Your task to perform on an android device: Open Youtube and go to "Your channel" Image 0: 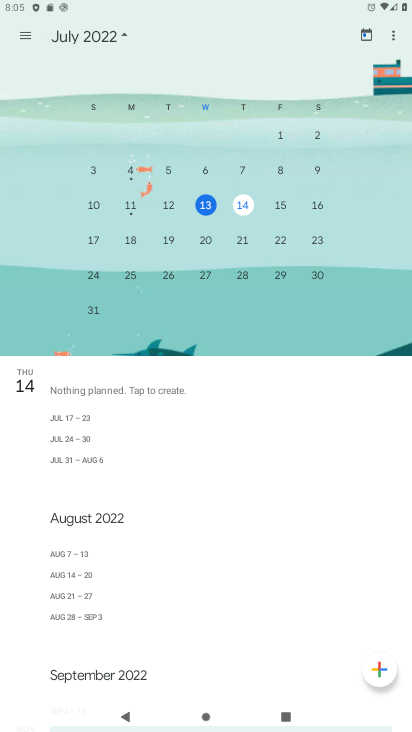
Step 0: press home button
Your task to perform on an android device: Open Youtube and go to "Your channel" Image 1: 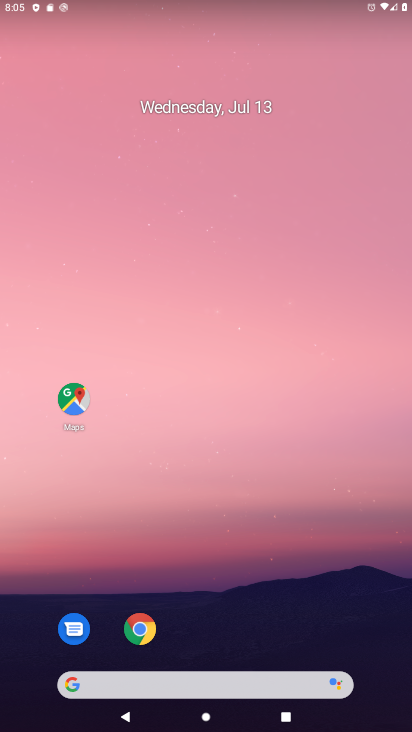
Step 1: drag from (285, 594) to (329, 4)
Your task to perform on an android device: Open Youtube and go to "Your channel" Image 2: 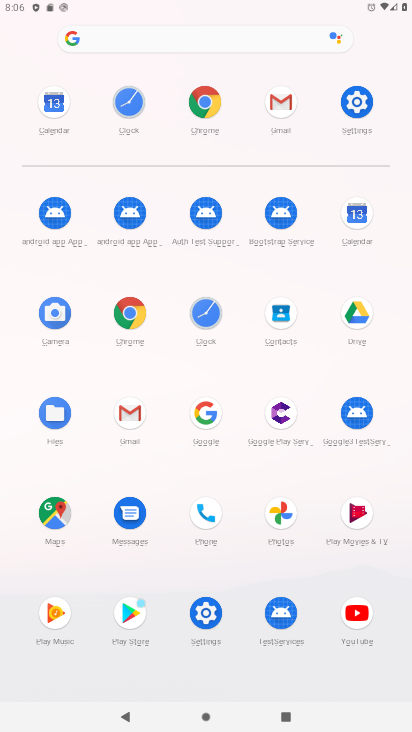
Step 2: click (358, 613)
Your task to perform on an android device: Open Youtube and go to "Your channel" Image 3: 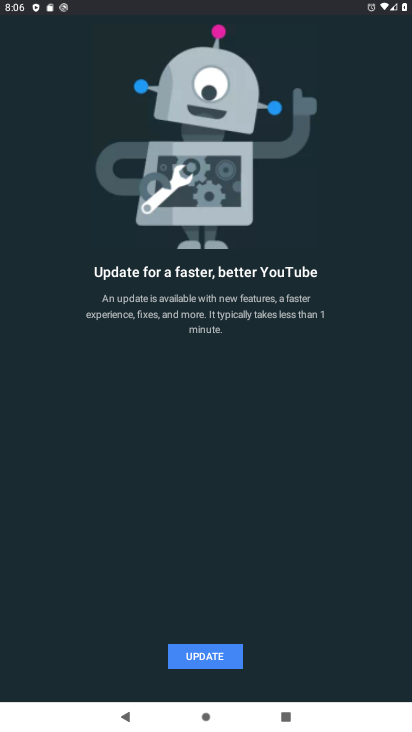
Step 3: click (227, 656)
Your task to perform on an android device: Open Youtube and go to "Your channel" Image 4: 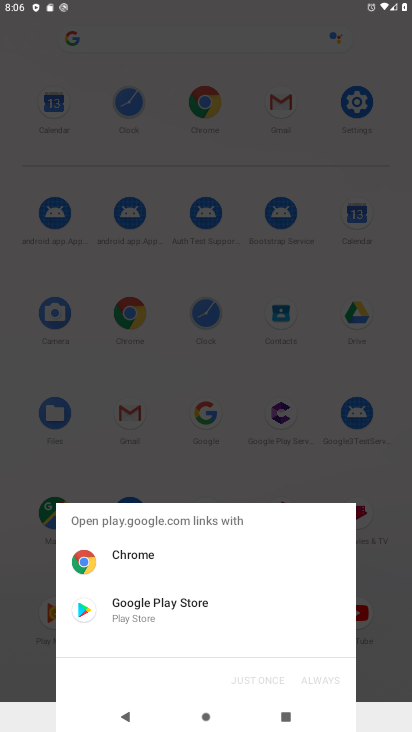
Step 4: click (119, 618)
Your task to perform on an android device: Open Youtube and go to "Your channel" Image 5: 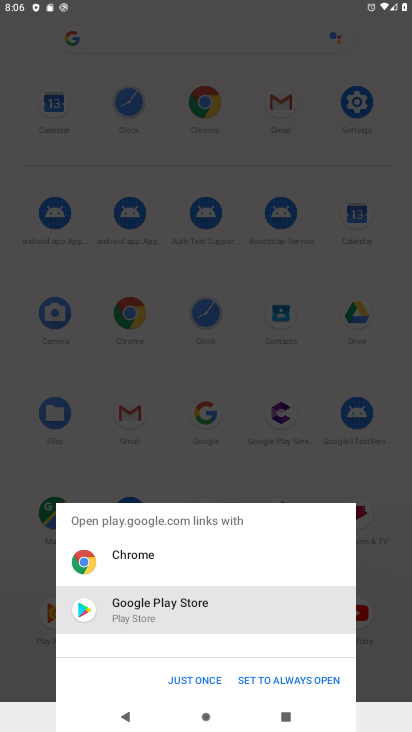
Step 5: click (184, 681)
Your task to perform on an android device: Open Youtube and go to "Your channel" Image 6: 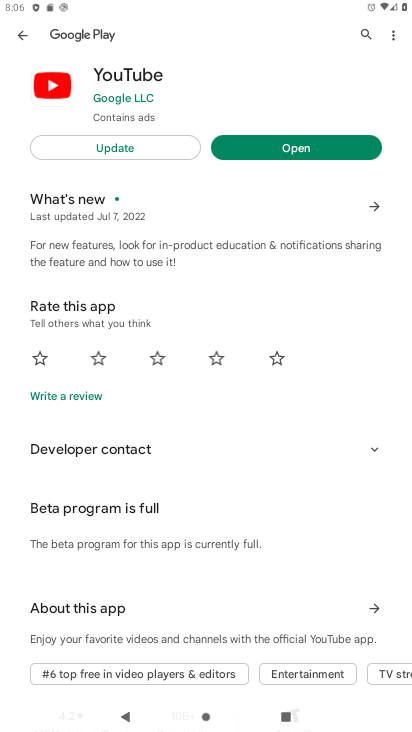
Step 6: click (103, 149)
Your task to perform on an android device: Open Youtube and go to "Your channel" Image 7: 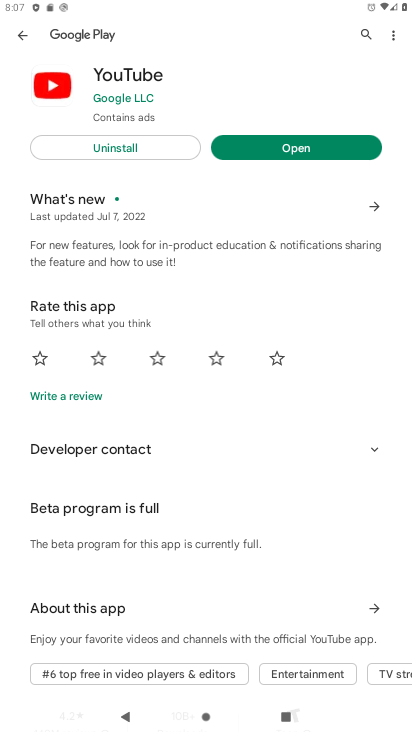
Step 7: click (283, 170)
Your task to perform on an android device: Open Youtube and go to "Your channel" Image 8: 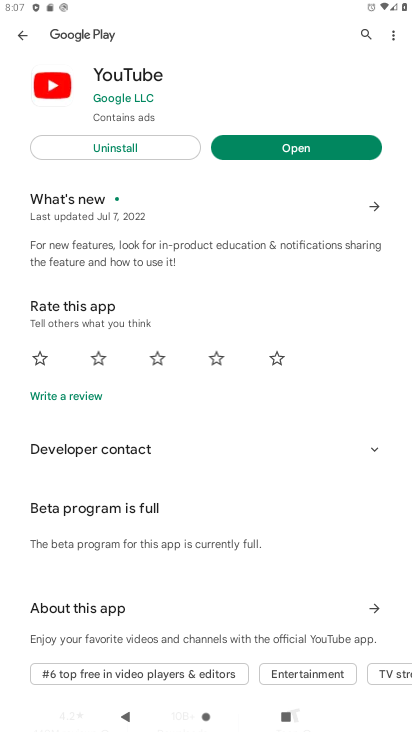
Step 8: click (283, 146)
Your task to perform on an android device: Open Youtube and go to "Your channel" Image 9: 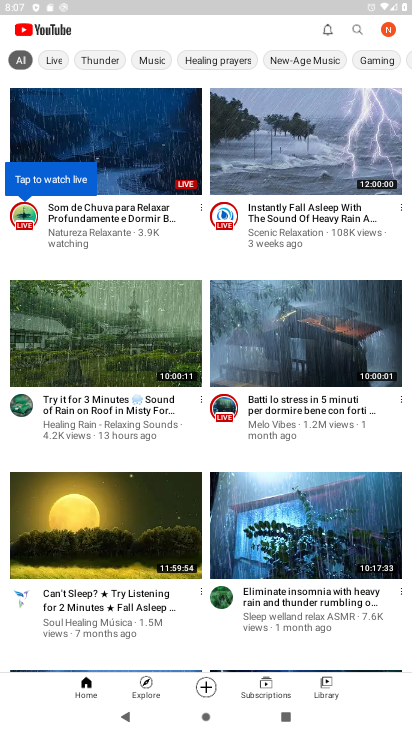
Step 9: click (385, 28)
Your task to perform on an android device: Open Youtube and go to "Your channel" Image 10: 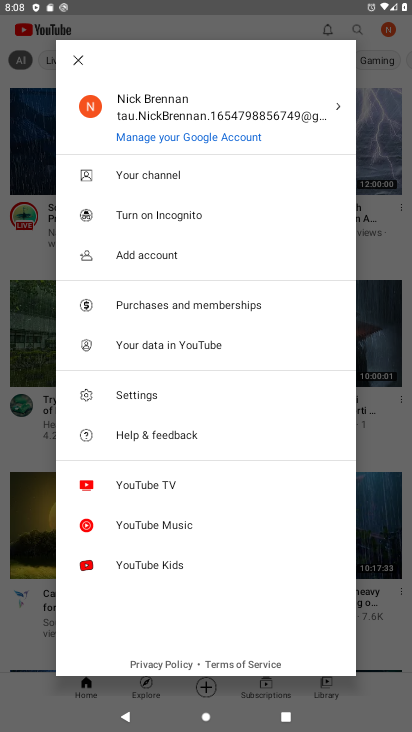
Step 10: click (177, 188)
Your task to perform on an android device: Open Youtube and go to "Your channel" Image 11: 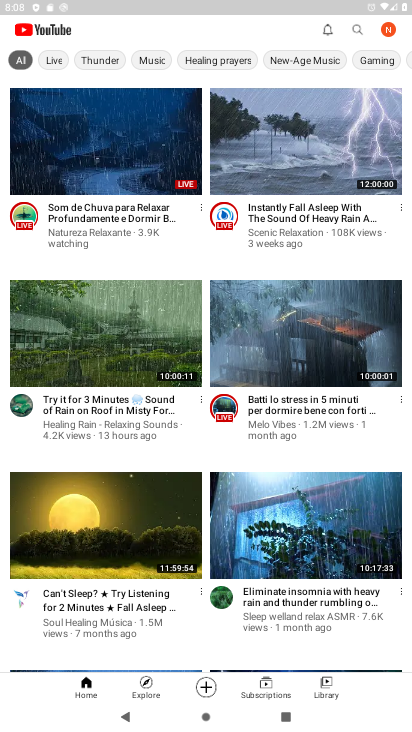
Step 11: task complete